Your task to perform on an android device: turn pop-ups off in chrome Image 0: 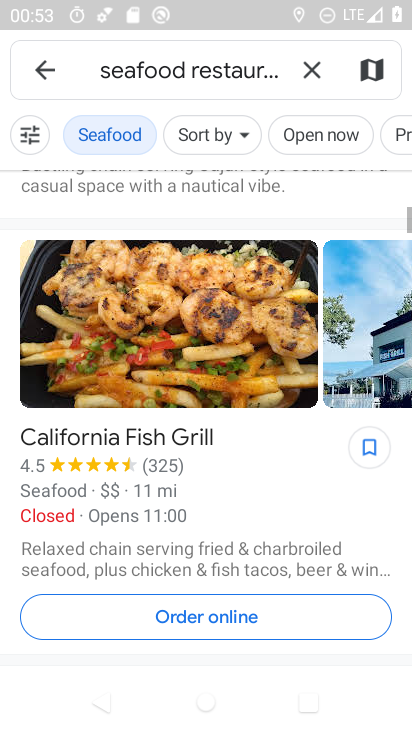
Step 0: drag from (224, 523) to (221, 193)
Your task to perform on an android device: turn pop-ups off in chrome Image 1: 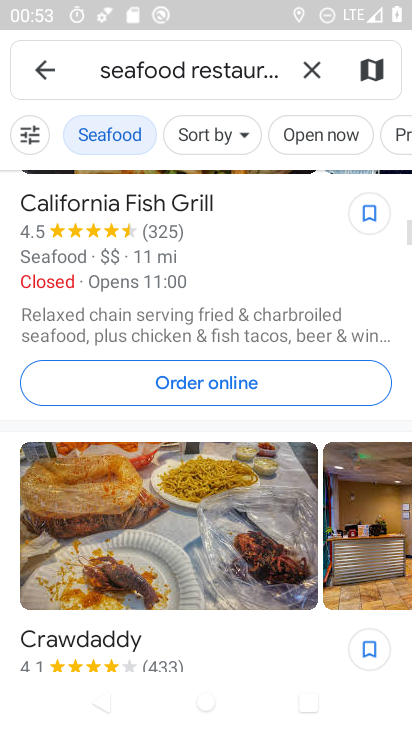
Step 1: drag from (234, 650) to (258, 348)
Your task to perform on an android device: turn pop-ups off in chrome Image 2: 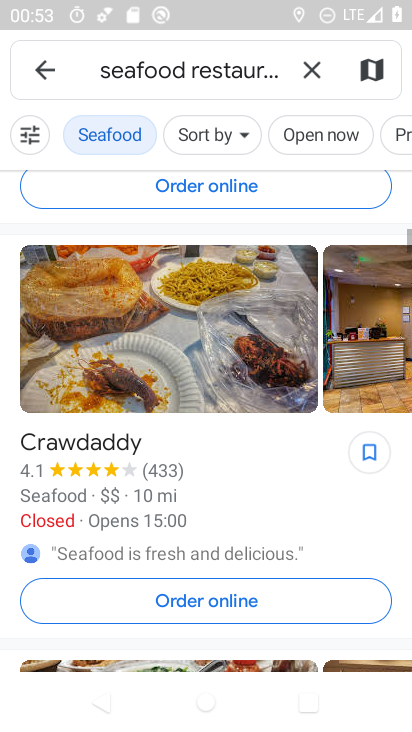
Step 2: drag from (311, 205) to (405, 420)
Your task to perform on an android device: turn pop-ups off in chrome Image 3: 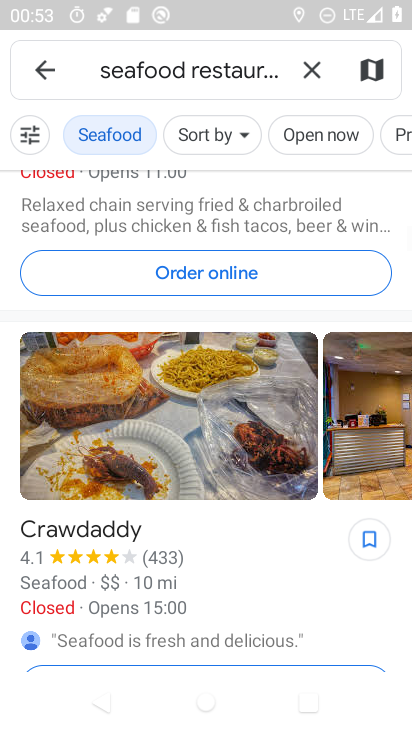
Step 3: press home button
Your task to perform on an android device: turn pop-ups off in chrome Image 4: 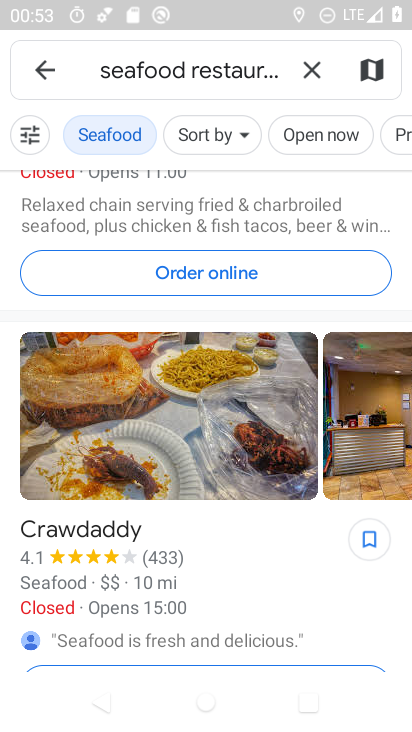
Step 4: drag from (372, 362) to (280, 16)
Your task to perform on an android device: turn pop-ups off in chrome Image 5: 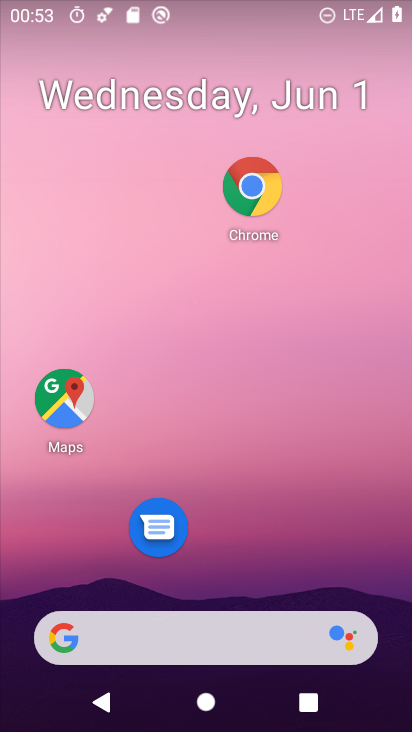
Step 5: click (251, 179)
Your task to perform on an android device: turn pop-ups off in chrome Image 6: 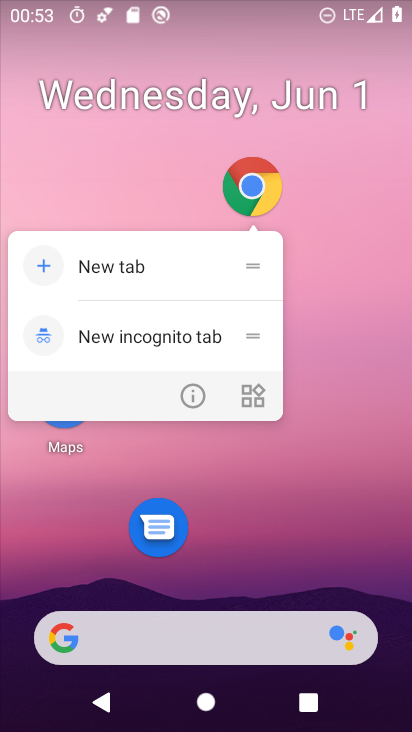
Step 6: click (188, 391)
Your task to perform on an android device: turn pop-ups off in chrome Image 7: 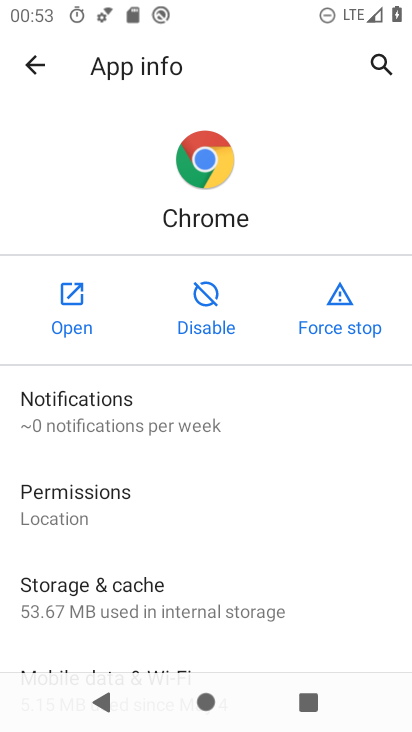
Step 7: click (86, 309)
Your task to perform on an android device: turn pop-ups off in chrome Image 8: 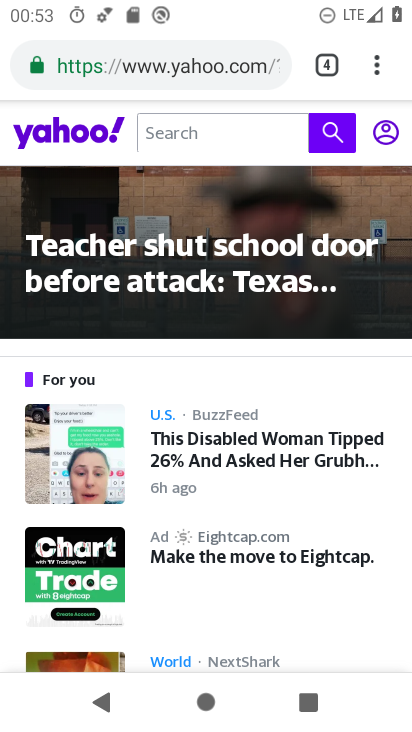
Step 8: drag from (379, 65) to (181, 583)
Your task to perform on an android device: turn pop-ups off in chrome Image 9: 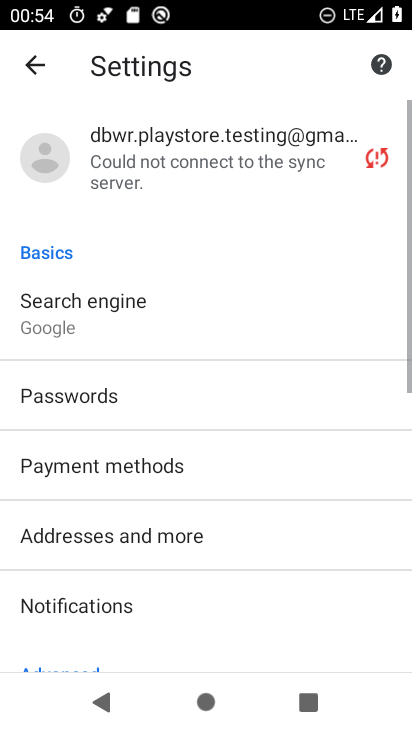
Step 9: drag from (171, 550) to (236, 210)
Your task to perform on an android device: turn pop-ups off in chrome Image 10: 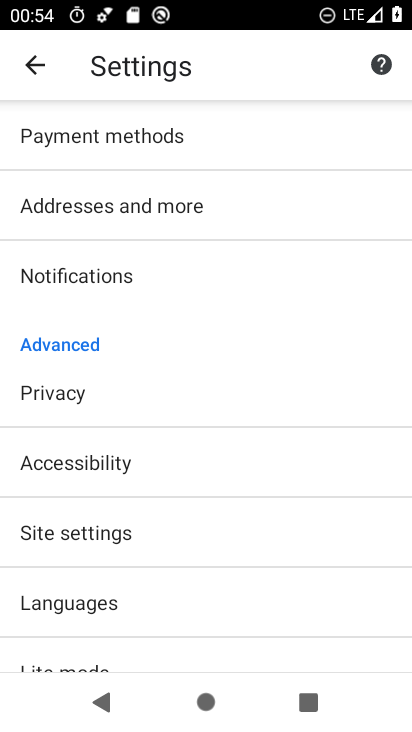
Step 10: click (117, 520)
Your task to perform on an android device: turn pop-ups off in chrome Image 11: 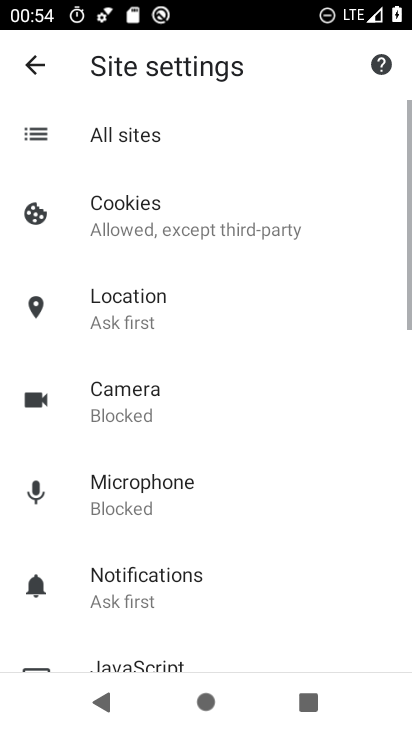
Step 11: drag from (157, 499) to (245, 168)
Your task to perform on an android device: turn pop-ups off in chrome Image 12: 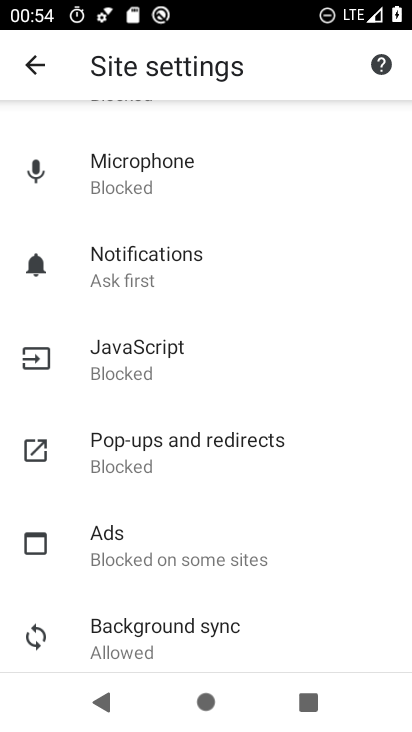
Step 12: click (173, 458)
Your task to perform on an android device: turn pop-ups off in chrome Image 13: 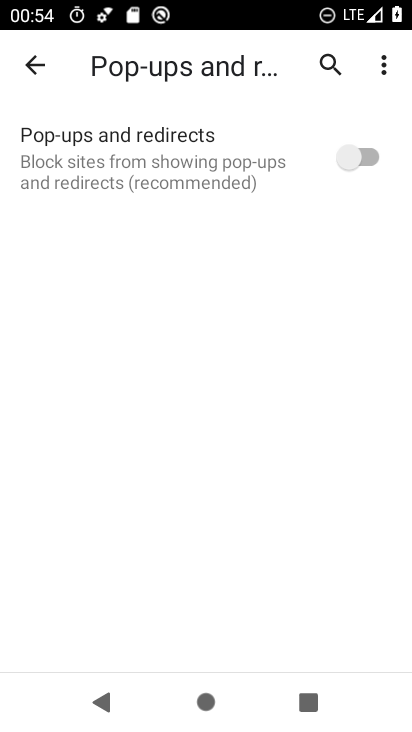
Step 13: task complete